Your task to perform on an android device: see tabs open on other devices in the chrome app Image 0: 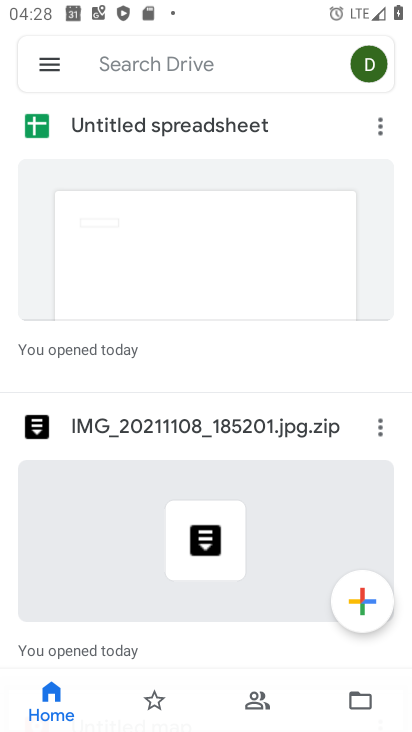
Step 0: press home button
Your task to perform on an android device: see tabs open on other devices in the chrome app Image 1: 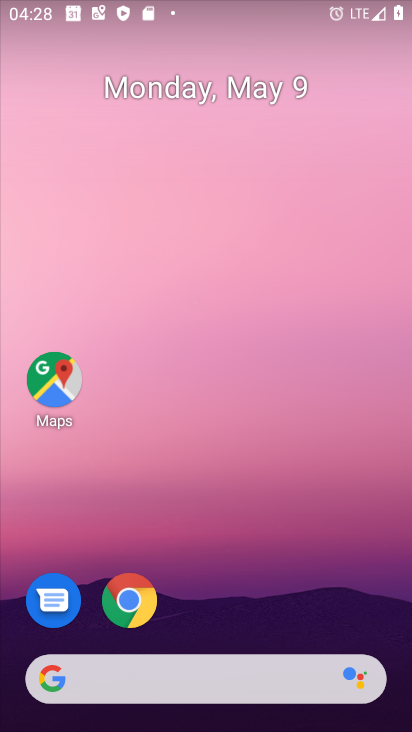
Step 1: drag from (341, 643) to (303, 130)
Your task to perform on an android device: see tabs open on other devices in the chrome app Image 2: 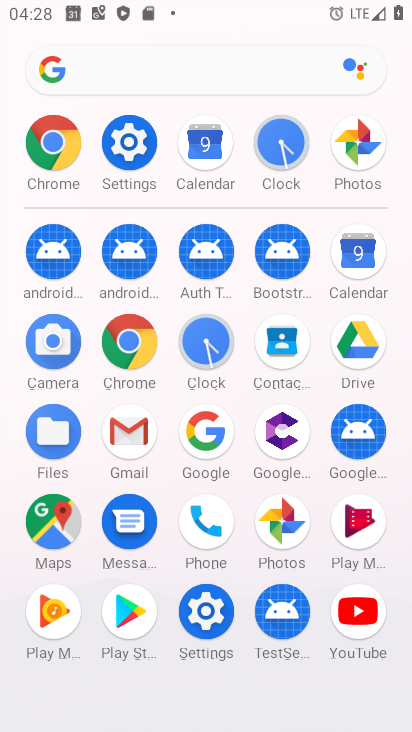
Step 2: click (144, 351)
Your task to perform on an android device: see tabs open on other devices in the chrome app Image 3: 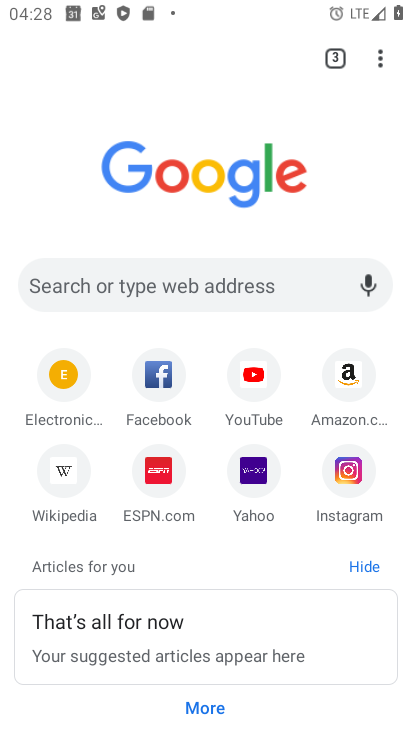
Step 3: task complete